Your task to perform on an android device: Open notification settings Image 0: 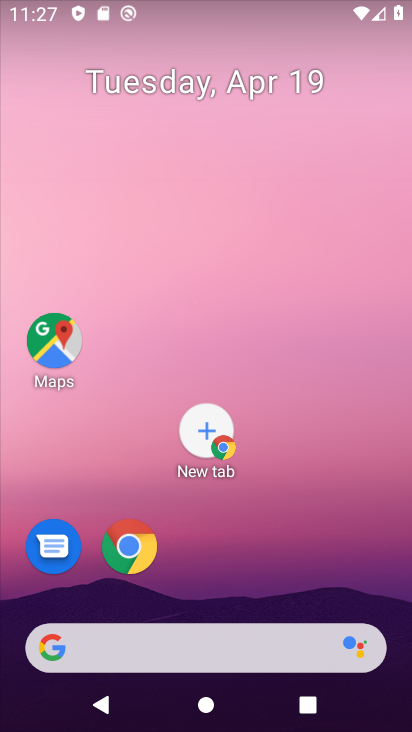
Step 0: drag from (195, 11) to (183, 706)
Your task to perform on an android device: Open notification settings Image 1: 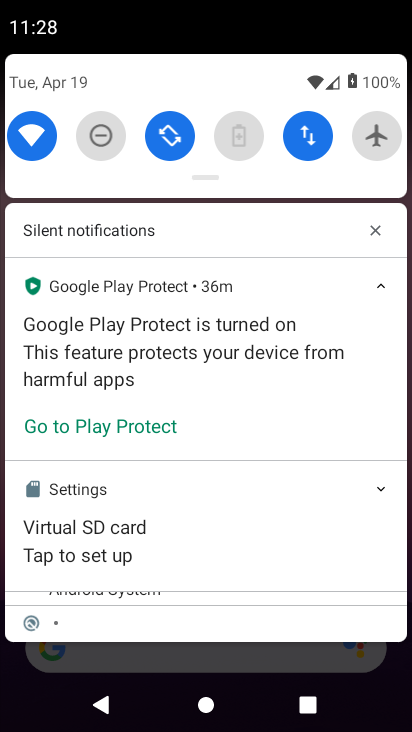
Step 1: drag from (258, 102) to (244, 667)
Your task to perform on an android device: Open notification settings Image 2: 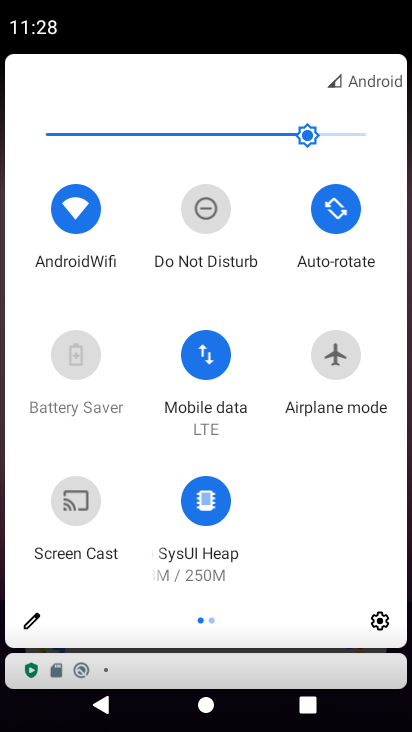
Step 2: click (375, 625)
Your task to perform on an android device: Open notification settings Image 3: 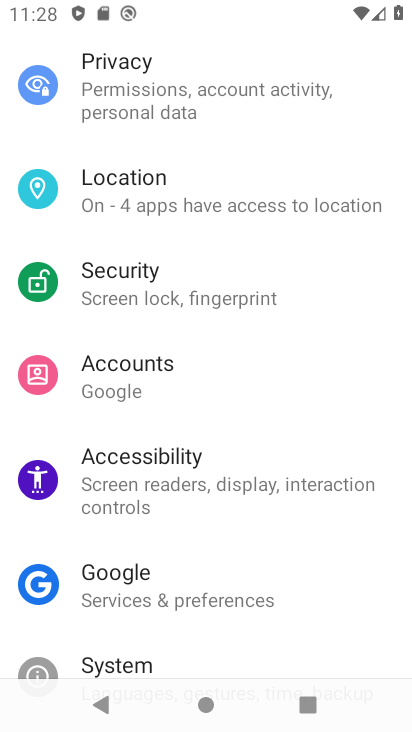
Step 3: drag from (225, 114) to (265, 617)
Your task to perform on an android device: Open notification settings Image 4: 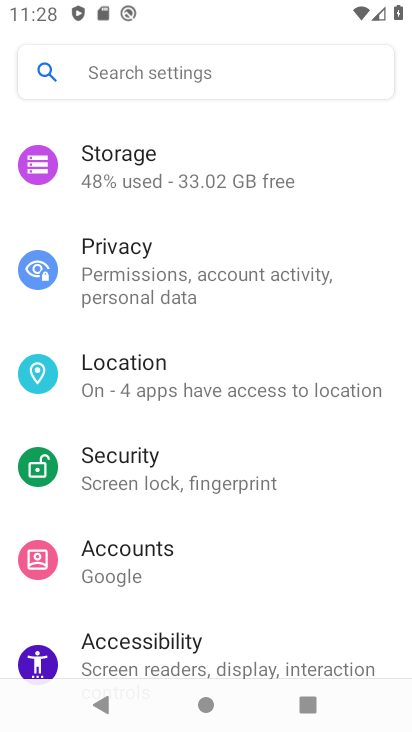
Step 4: drag from (191, 595) to (240, 225)
Your task to perform on an android device: Open notification settings Image 5: 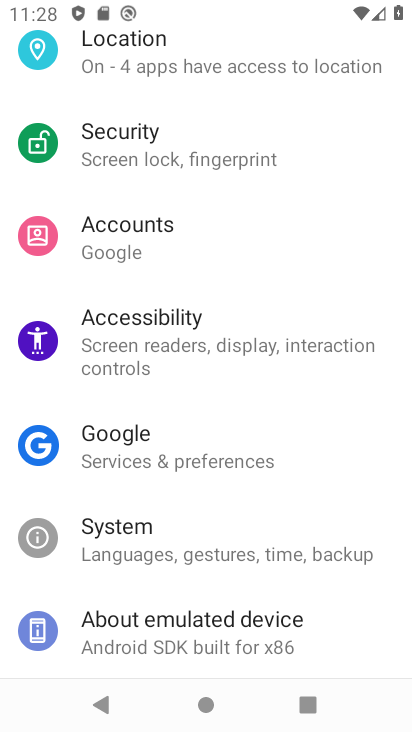
Step 5: drag from (231, 168) to (183, 615)
Your task to perform on an android device: Open notification settings Image 6: 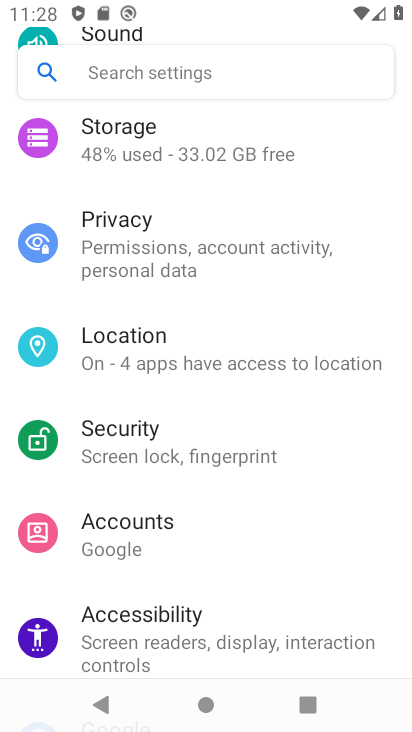
Step 6: drag from (188, 202) to (161, 560)
Your task to perform on an android device: Open notification settings Image 7: 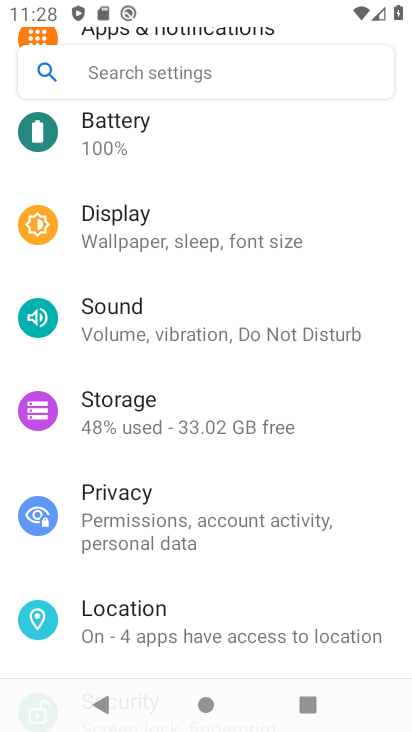
Step 7: drag from (151, 198) to (149, 618)
Your task to perform on an android device: Open notification settings Image 8: 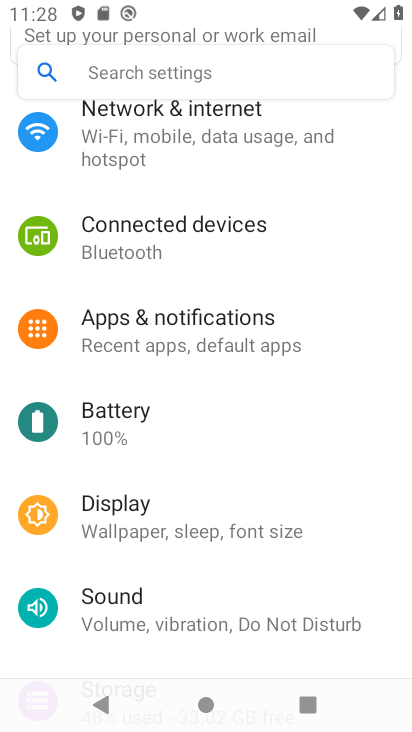
Step 8: click (119, 326)
Your task to perform on an android device: Open notification settings Image 9: 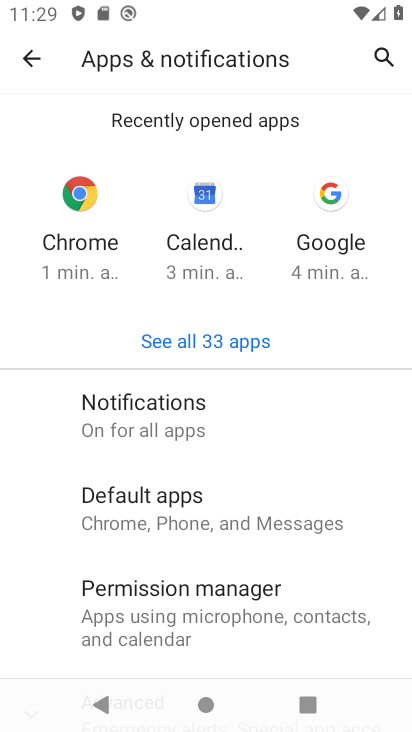
Step 9: task complete